Your task to perform on an android device: see sites visited before in the chrome app Image 0: 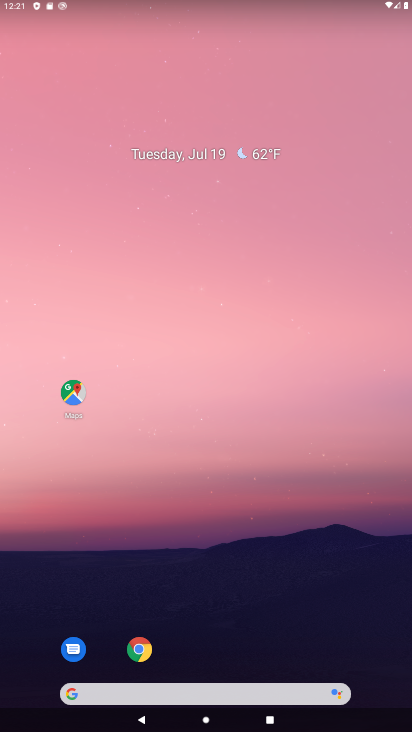
Step 0: drag from (179, 660) to (185, 173)
Your task to perform on an android device: see sites visited before in the chrome app Image 1: 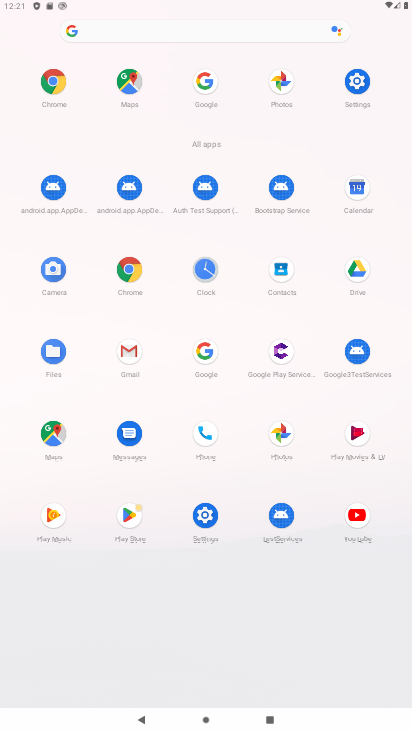
Step 1: click (131, 273)
Your task to perform on an android device: see sites visited before in the chrome app Image 2: 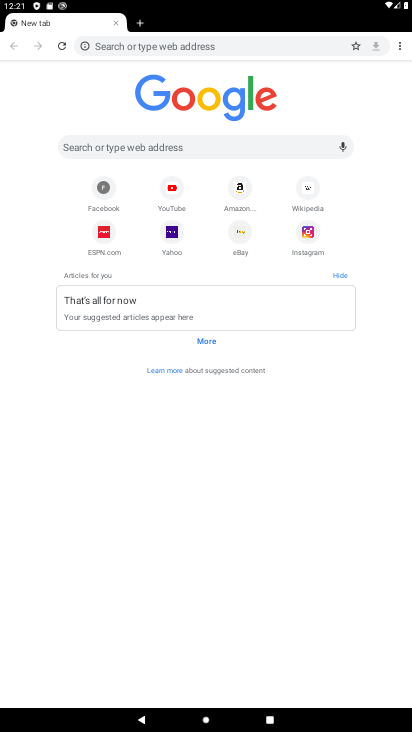
Step 2: click (396, 49)
Your task to perform on an android device: see sites visited before in the chrome app Image 3: 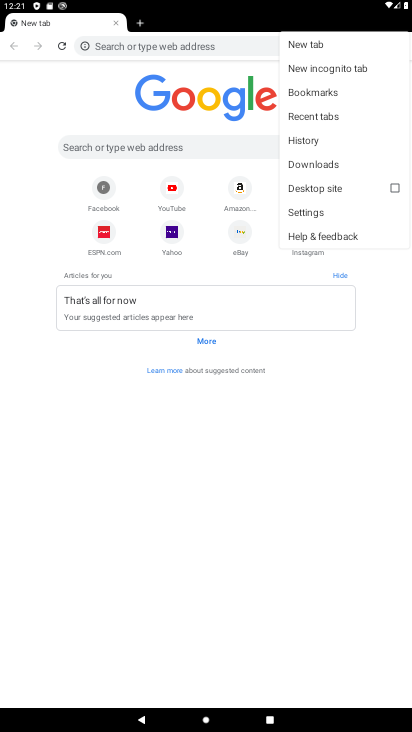
Step 3: click (297, 144)
Your task to perform on an android device: see sites visited before in the chrome app Image 4: 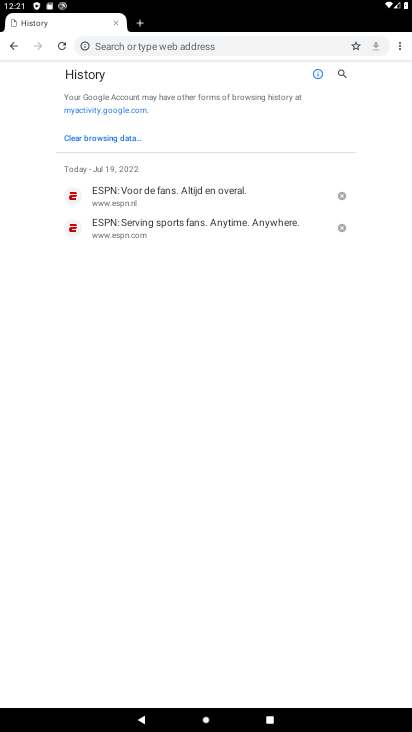
Step 4: task complete